Your task to perform on an android device: Search for the best way to get rid of a cold Image 0: 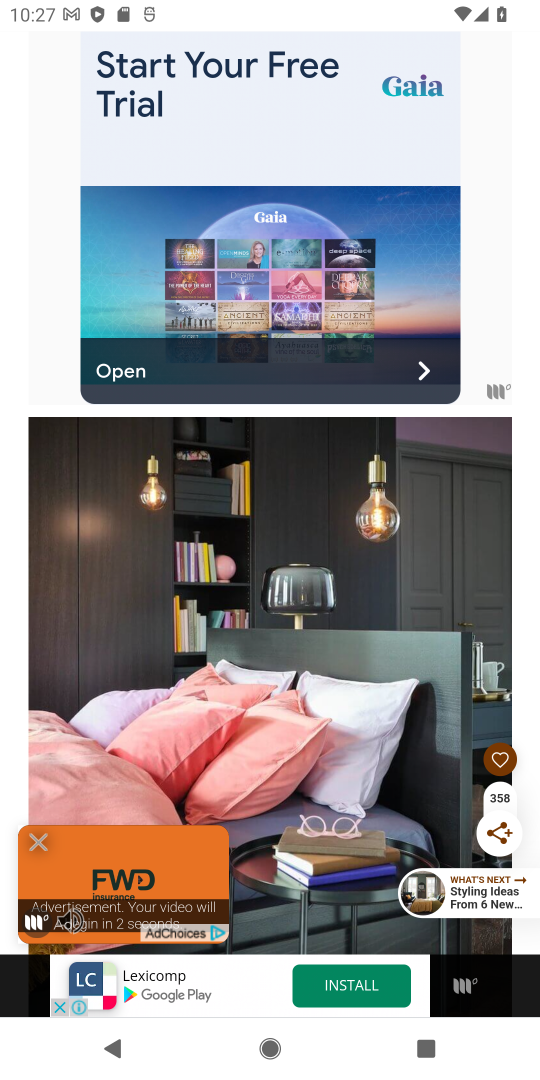
Step 0: press home button
Your task to perform on an android device: Search for the best way to get rid of a cold Image 1: 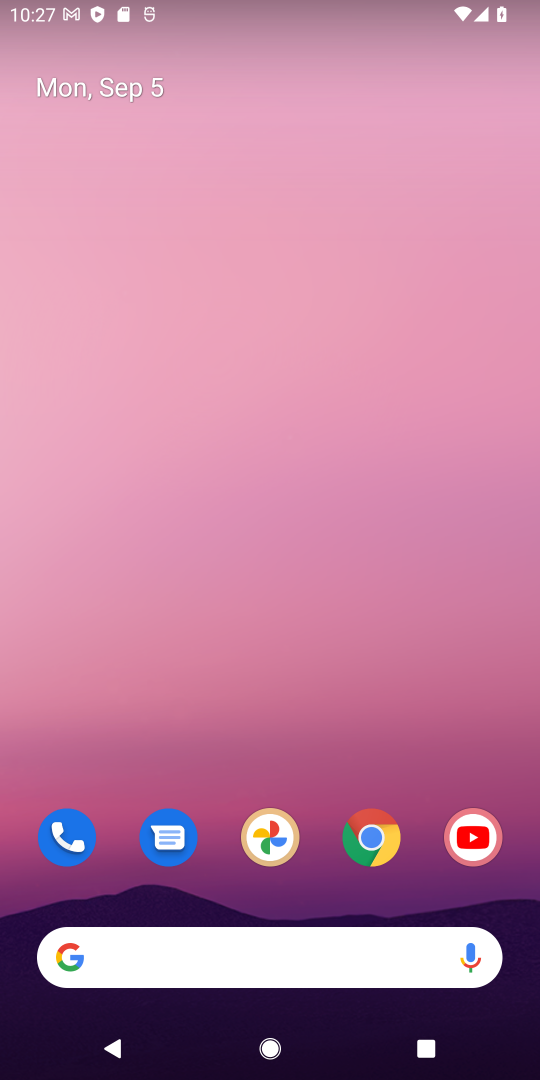
Step 1: press home button
Your task to perform on an android device: Search for the best way to get rid of a cold Image 2: 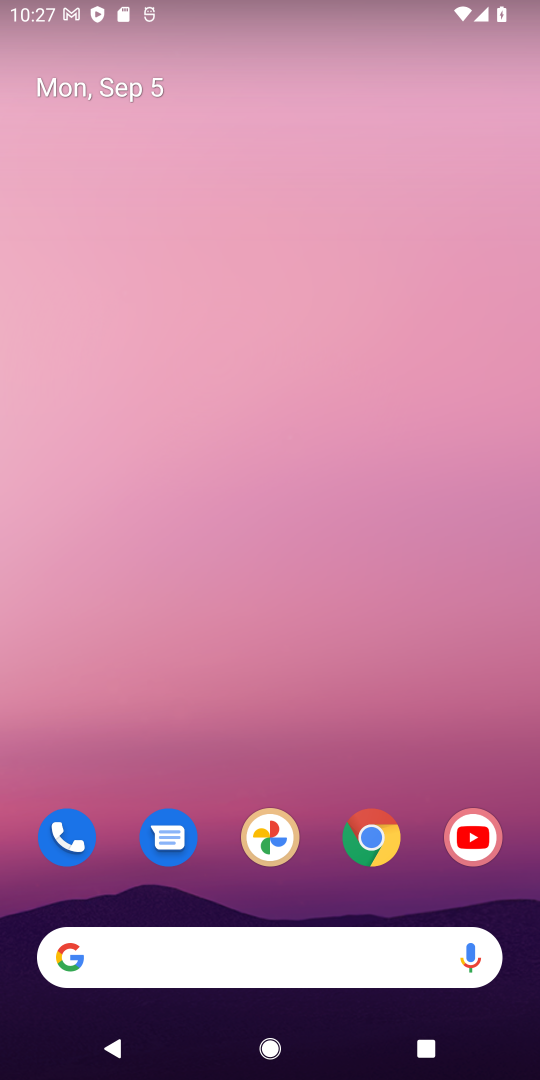
Step 2: drag from (327, 393) to (319, 117)
Your task to perform on an android device: Search for the best way to get rid of a cold Image 3: 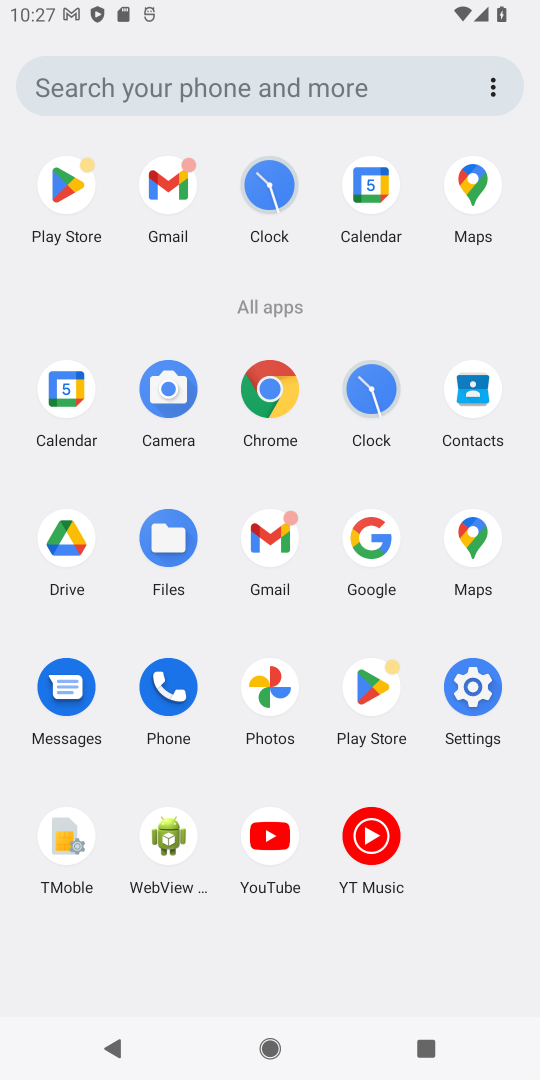
Step 3: click (274, 381)
Your task to perform on an android device: Search for the best way to get rid of a cold Image 4: 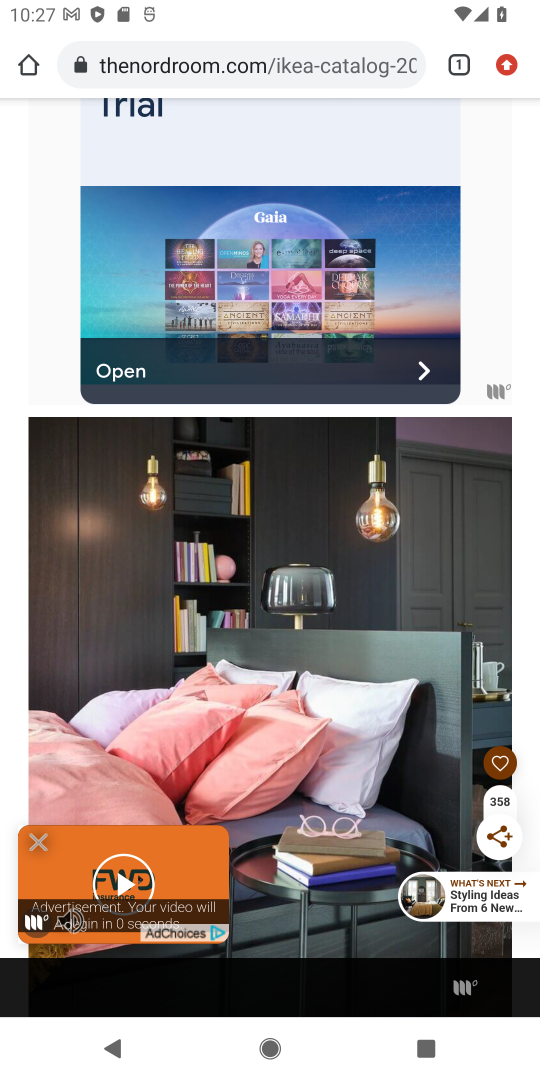
Step 4: click (288, 61)
Your task to perform on an android device: Search for the best way to get rid of a cold Image 5: 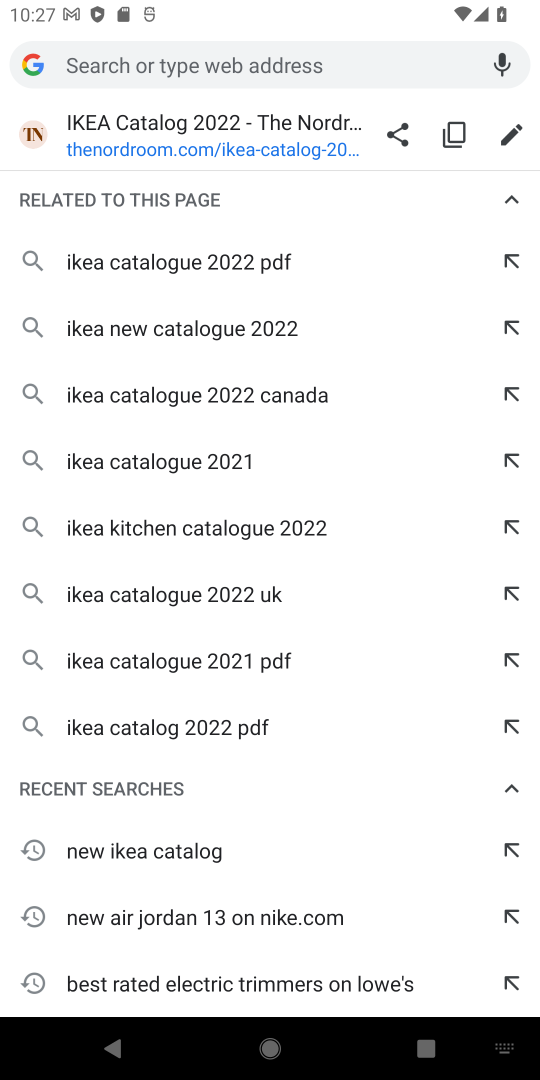
Step 5: click (137, 64)
Your task to perform on an android device: Search for the best way to get rid of a cold Image 6: 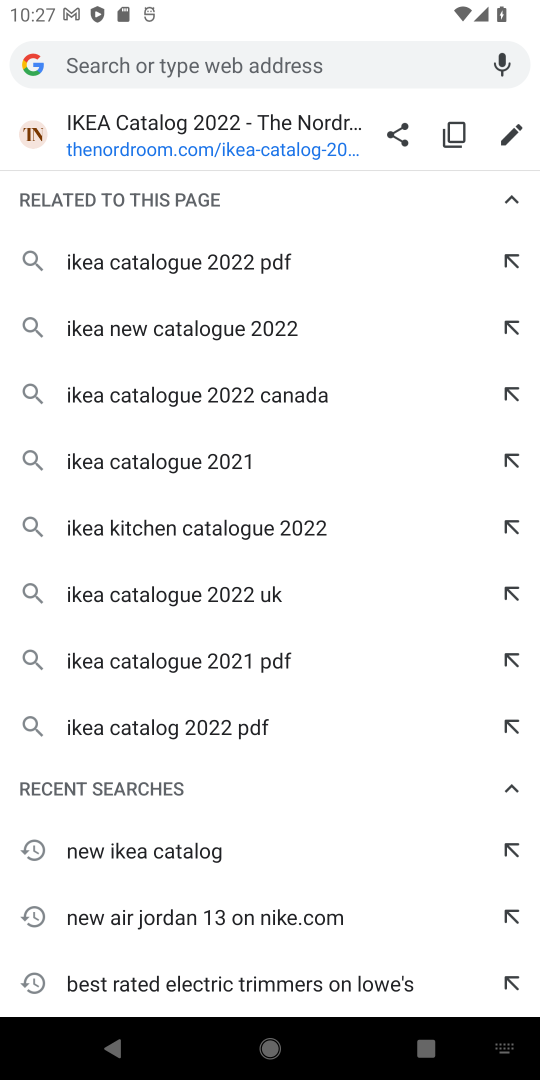
Step 6: type "best way to get rid of a cold"
Your task to perform on an android device: Search for the best way to get rid of a cold Image 7: 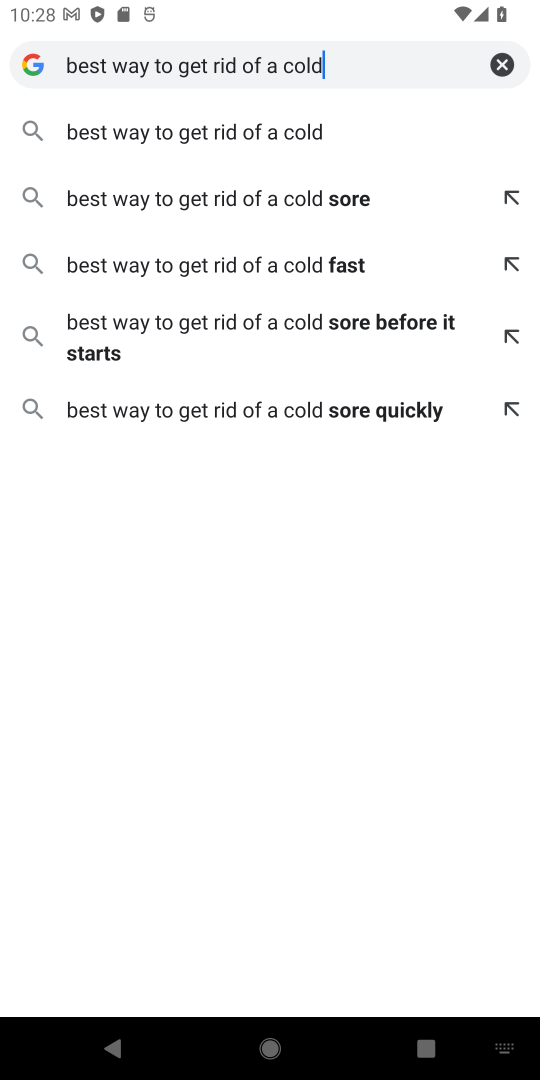
Step 7: click (226, 137)
Your task to perform on an android device: Search for the best way to get rid of a cold Image 8: 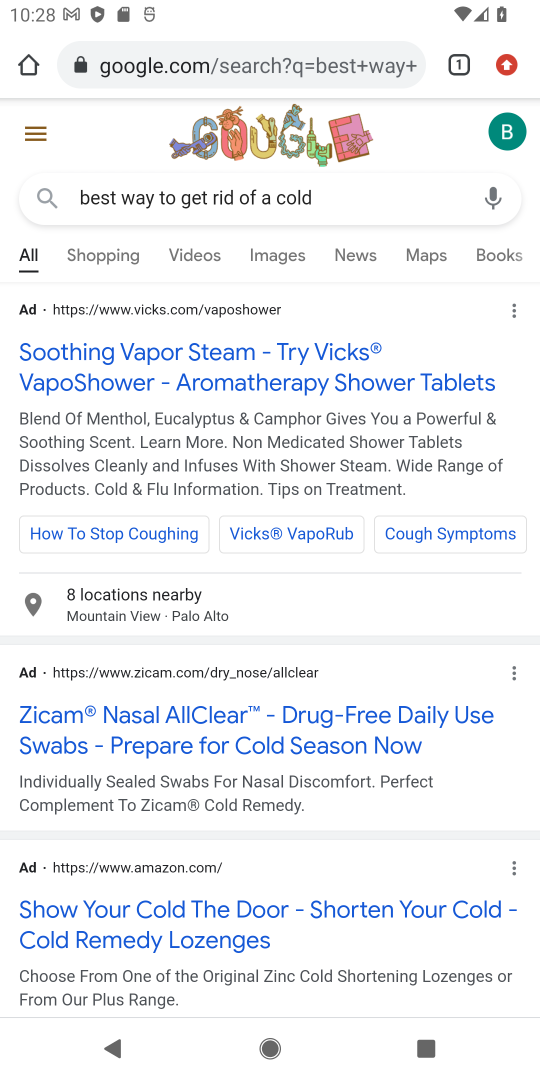
Step 8: click (218, 809)
Your task to perform on an android device: Search for the best way to get rid of a cold Image 9: 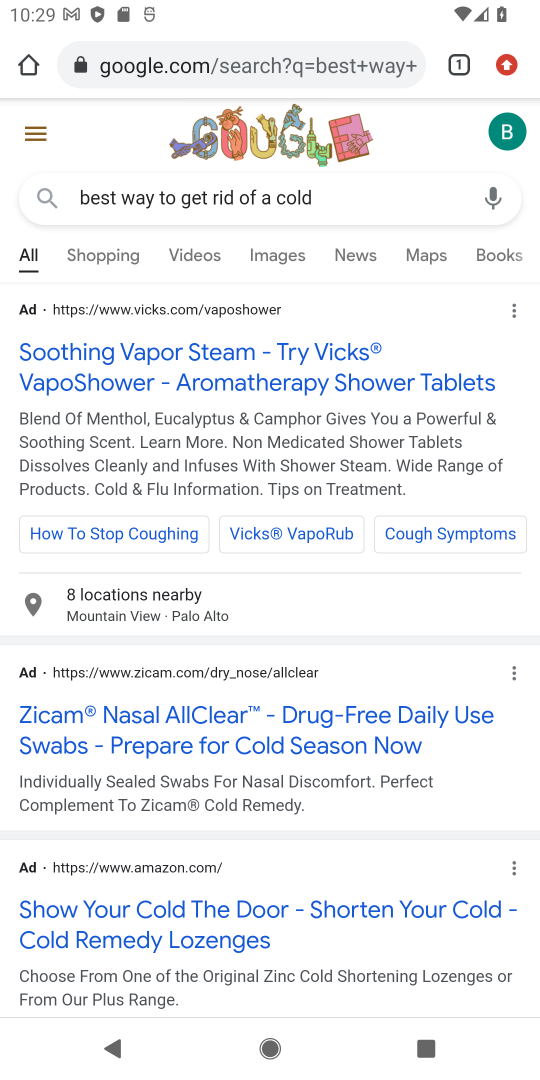
Step 9: click (164, 359)
Your task to perform on an android device: Search for the best way to get rid of a cold Image 10: 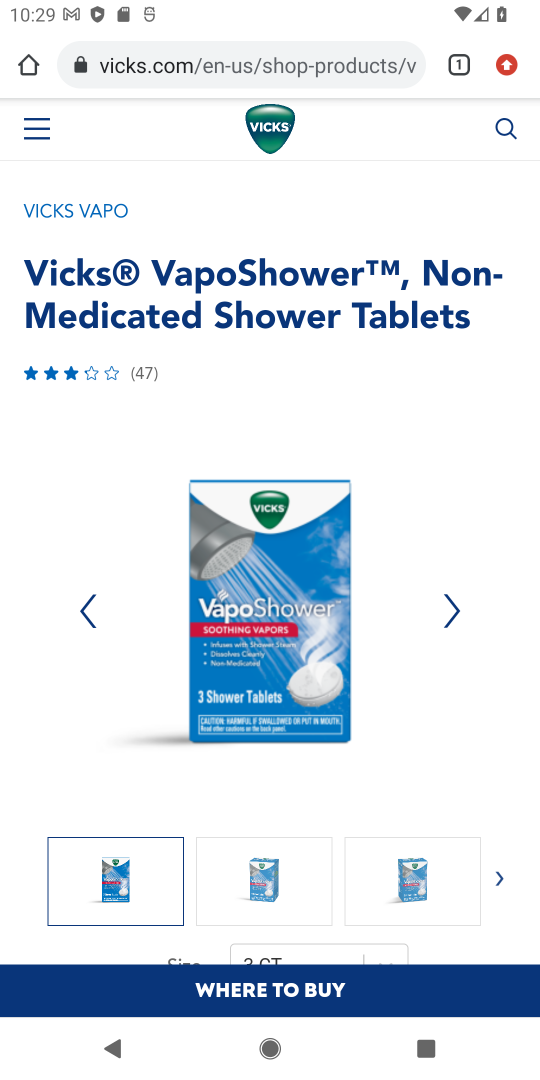
Step 10: task complete